Your task to perform on an android device: add a contact Image 0: 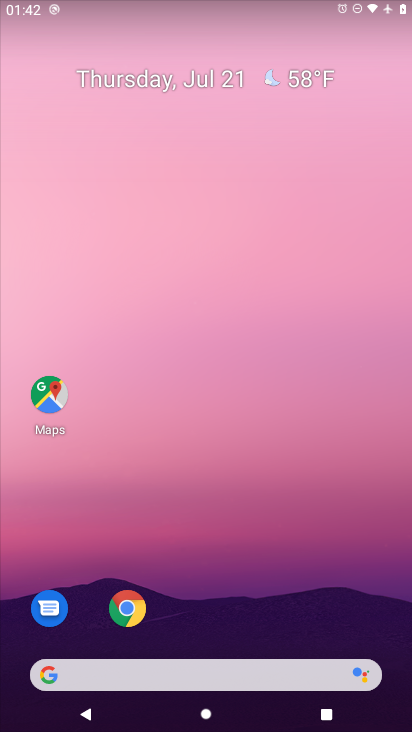
Step 0: press home button
Your task to perform on an android device: add a contact Image 1: 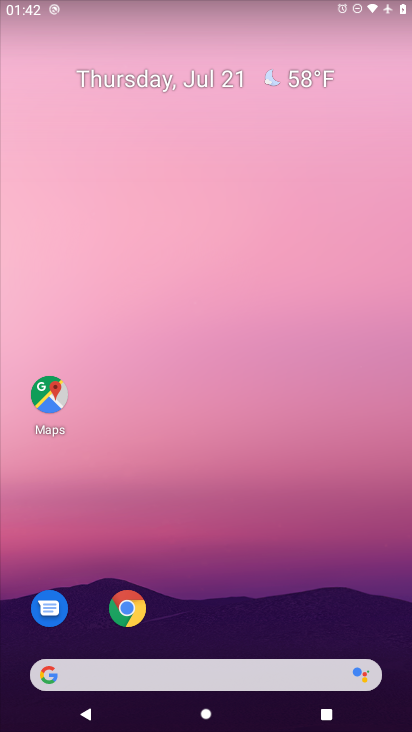
Step 1: drag from (244, 632) to (57, 9)
Your task to perform on an android device: add a contact Image 2: 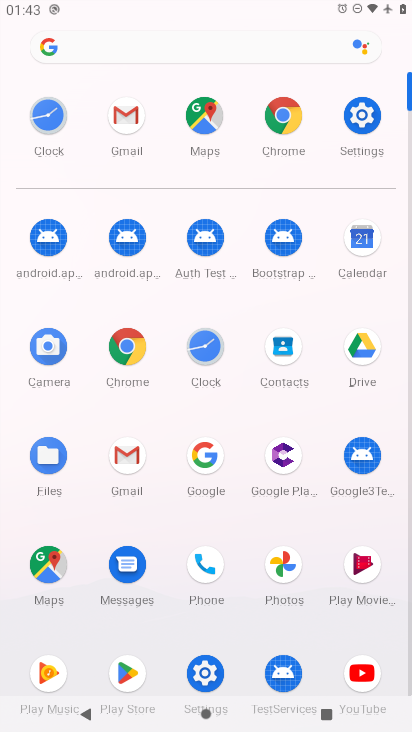
Step 2: click (280, 355)
Your task to perform on an android device: add a contact Image 3: 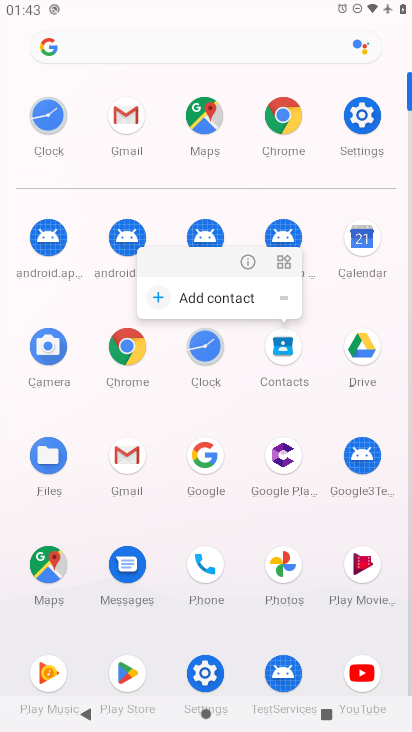
Step 3: click (280, 355)
Your task to perform on an android device: add a contact Image 4: 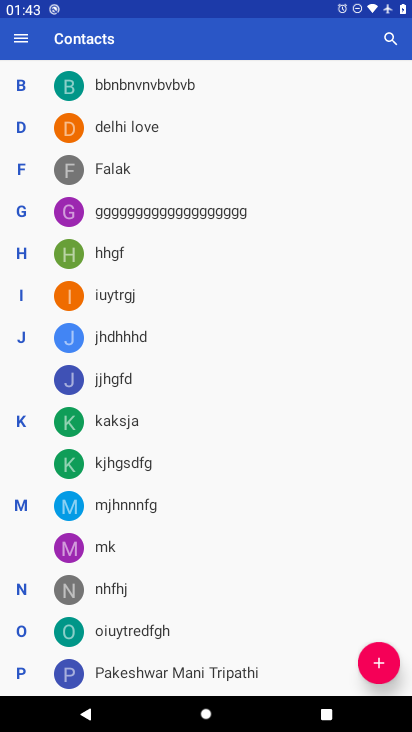
Step 4: click (373, 672)
Your task to perform on an android device: add a contact Image 5: 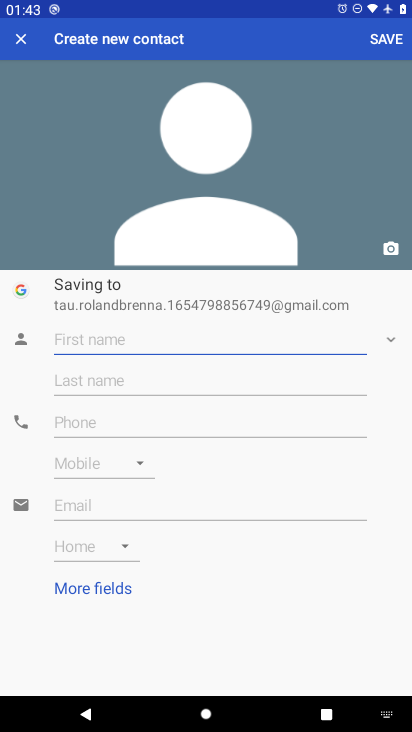
Step 5: type "ghghghg"
Your task to perform on an android device: add a contact Image 6: 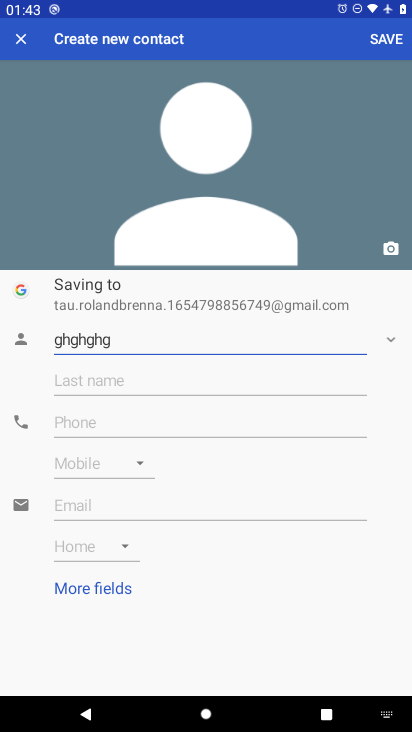
Step 6: click (165, 411)
Your task to perform on an android device: add a contact Image 7: 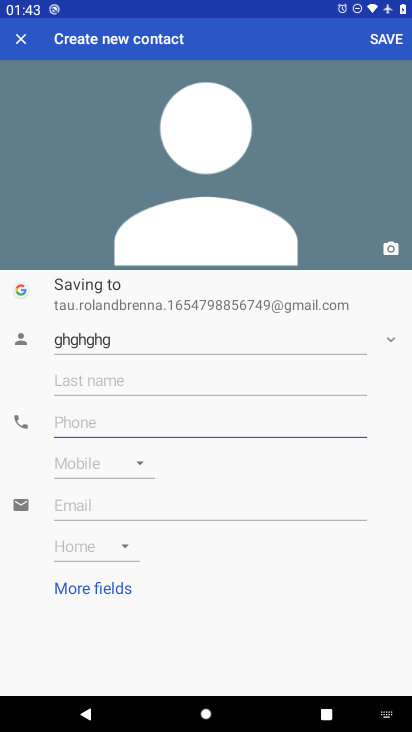
Step 7: type "7879797"
Your task to perform on an android device: add a contact Image 8: 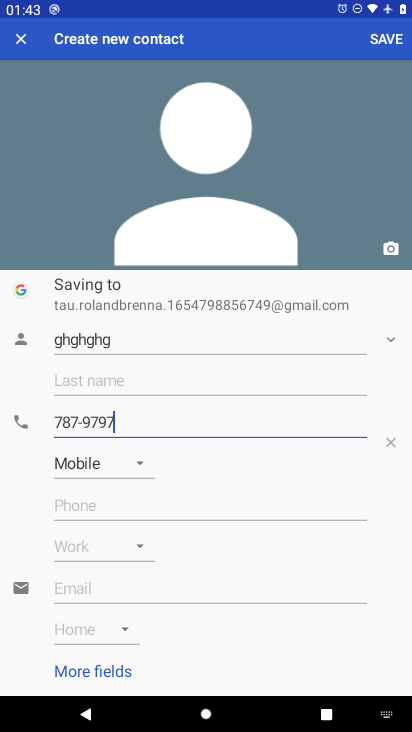
Step 8: click (392, 39)
Your task to perform on an android device: add a contact Image 9: 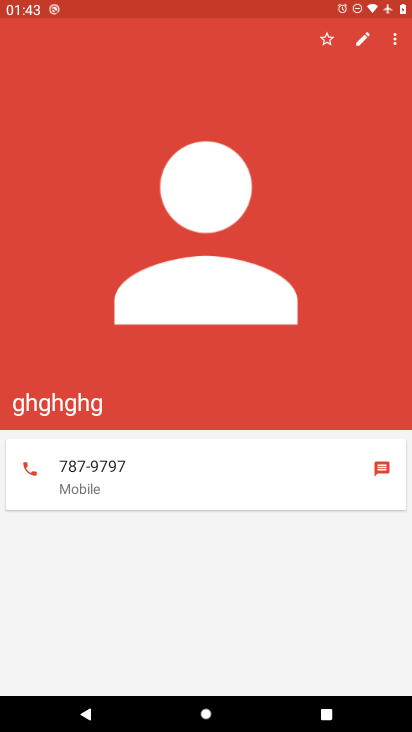
Step 9: task complete